Your task to perform on an android device: Go to accessibility settings Image 0: 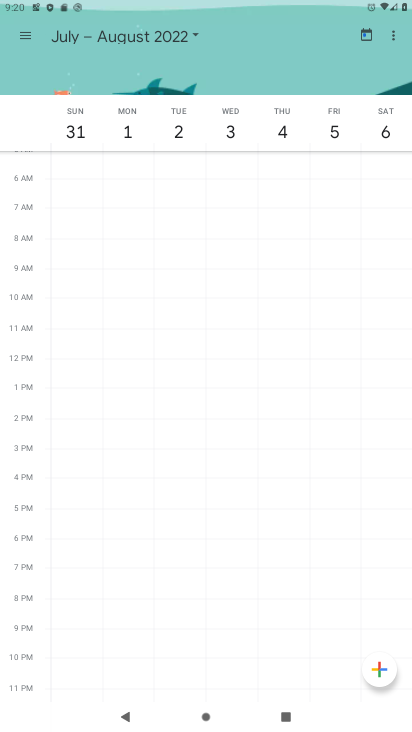
Step 0: press home button
Your task to perform on an android device: Go to accessibility settings Image 1: 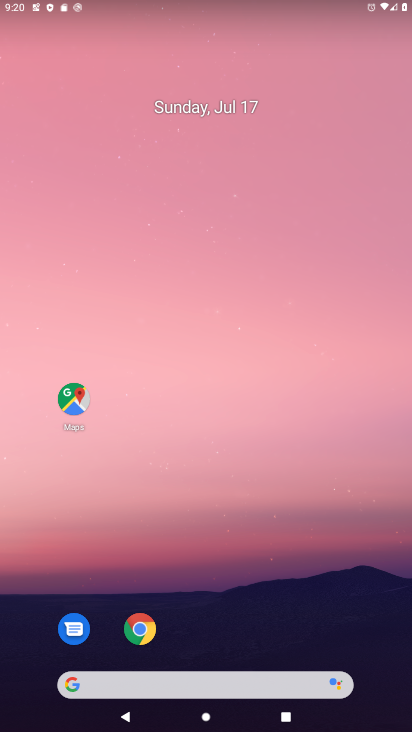
Step 1: drag from (183, 655) to (234, 11)
Your task to perform on an android device: Go to accessibility settings Image 2: 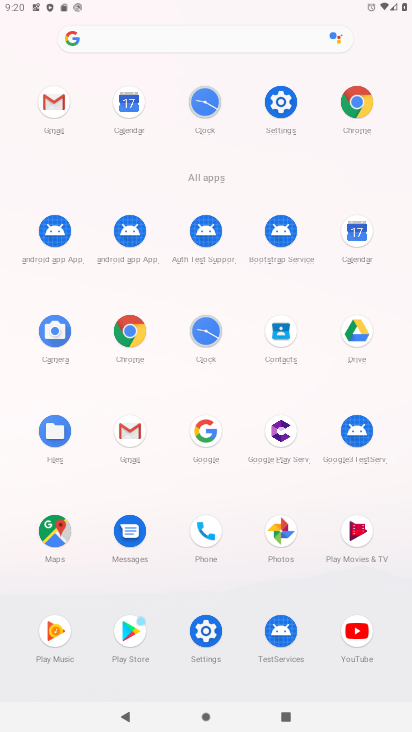
Step 2: click (206, 647)
Your task to perform on an android device: Go to accessibility settings Image 3: 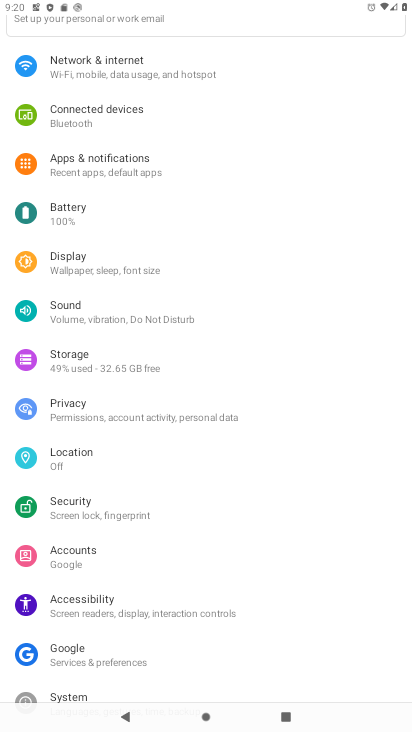
Step 3: click (116, 603)
Your task to perform on an android device: Go to accessibility settings Image 4: 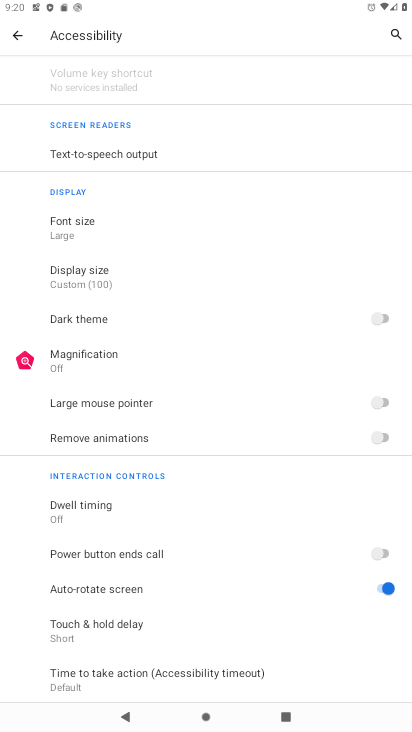
Step 4: task complete